Your task to perform on an android device: Is it going to rain this weekend? Image 0: 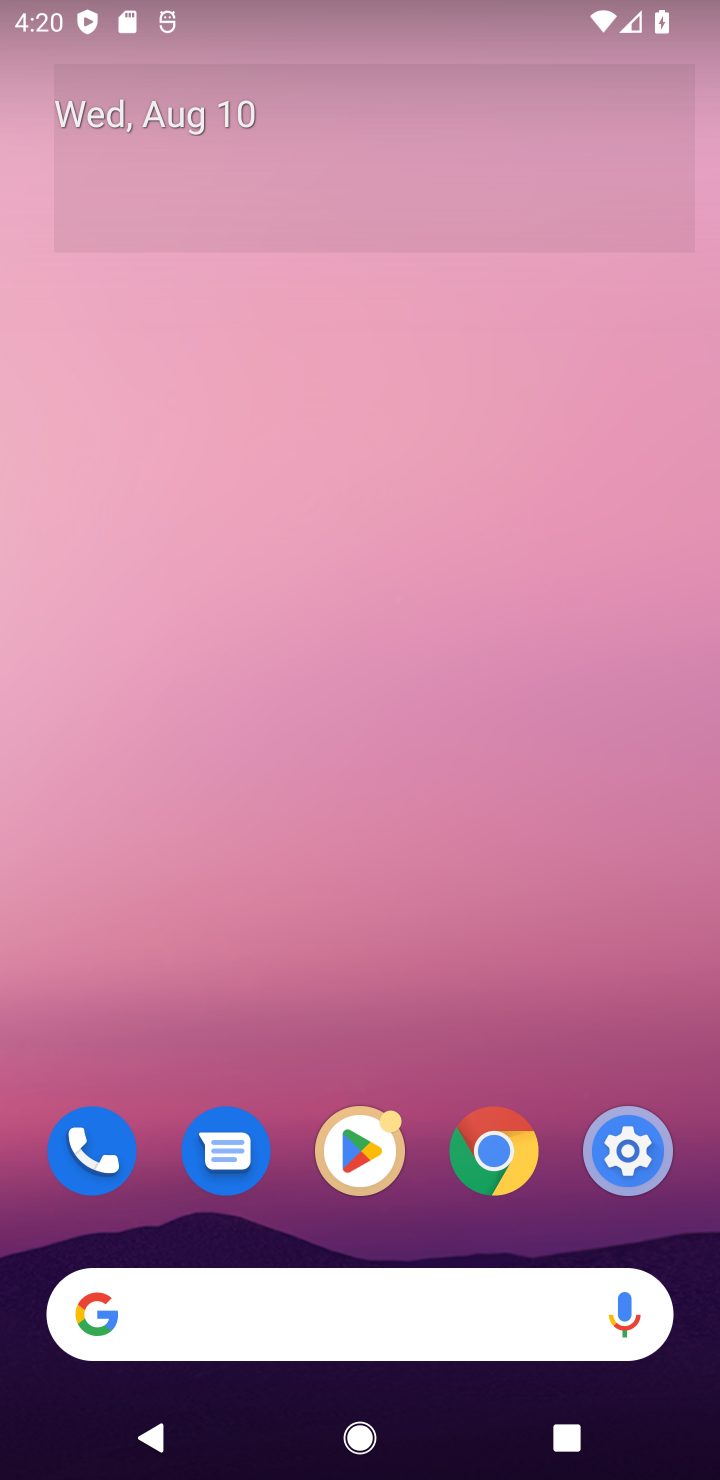
Step 0: click (456, 1316)
Your task to perform on an android device: Is it going to rain this weekend? Image 1: 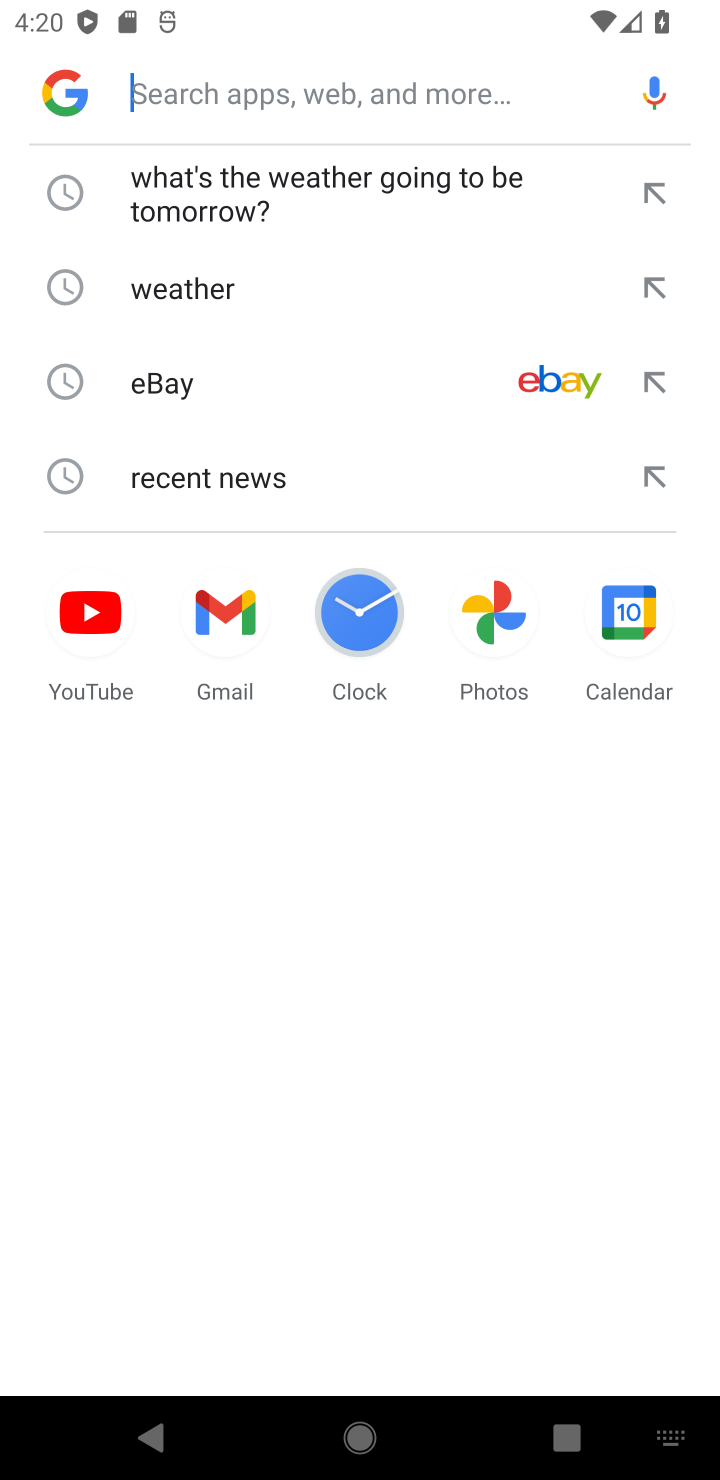
Step 1: type "Is it going to rain this weekend?"
Your task to perform on an android device: Is it going to rain this weekend? Image 2: 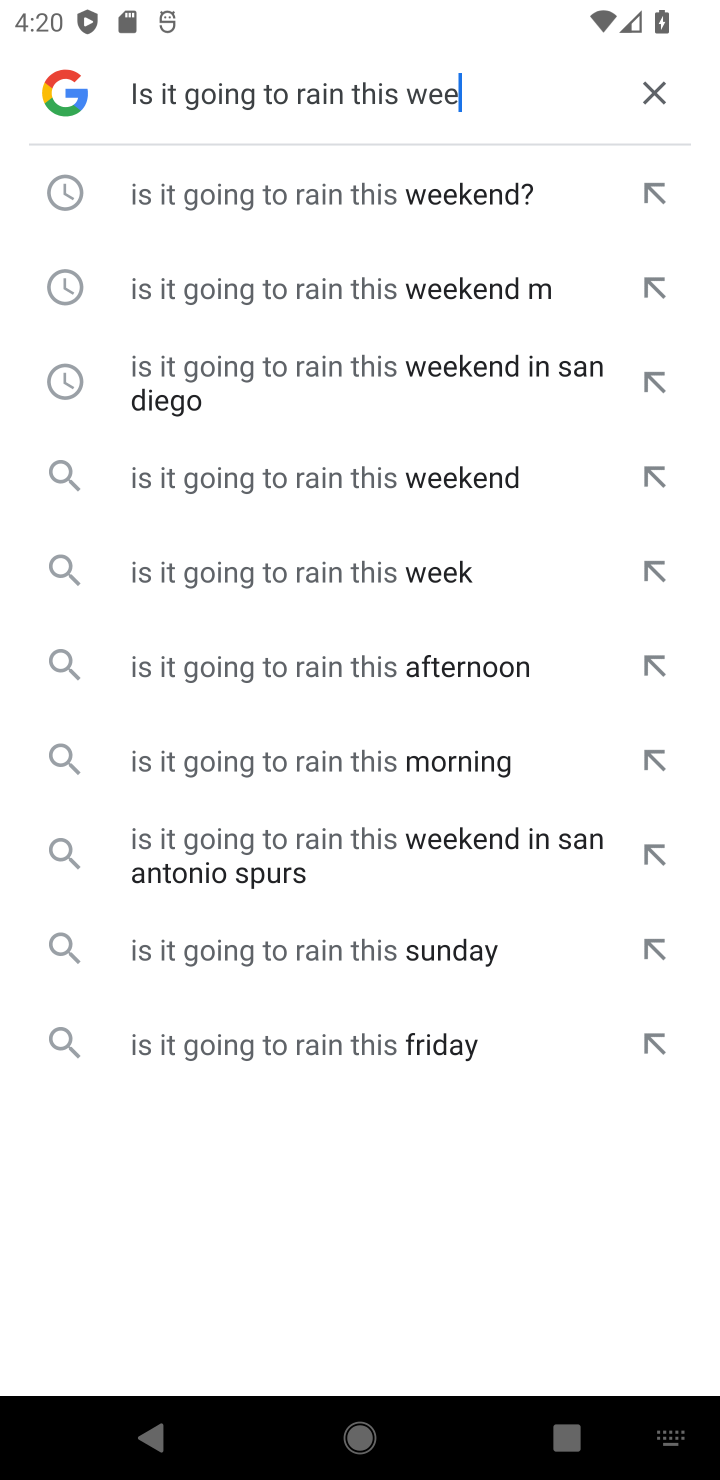
Step 2: press enter
Your task to perform on an android device: Is it going to rain this weekend? Image 3: 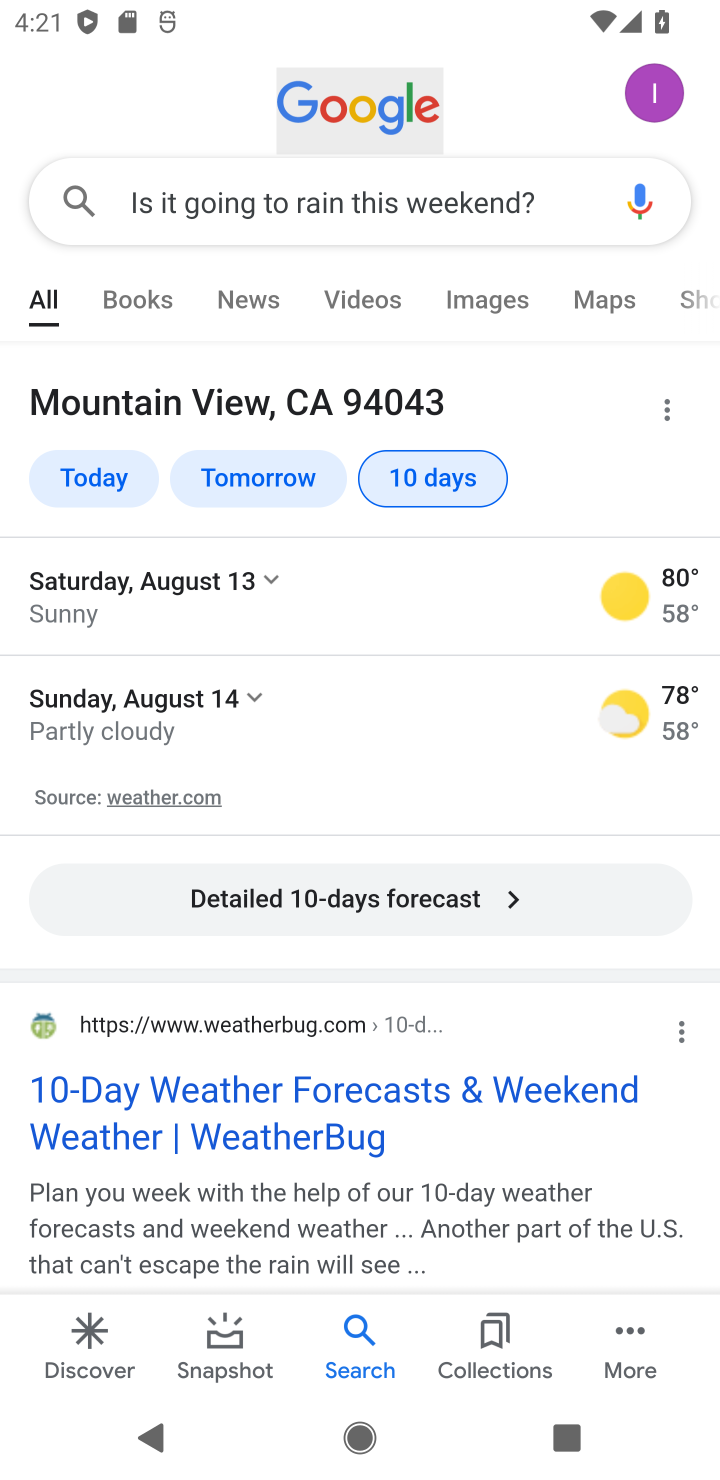
Step 3: task complete